Your task to perform on an android device: open app "The Home Depot" Image 0: 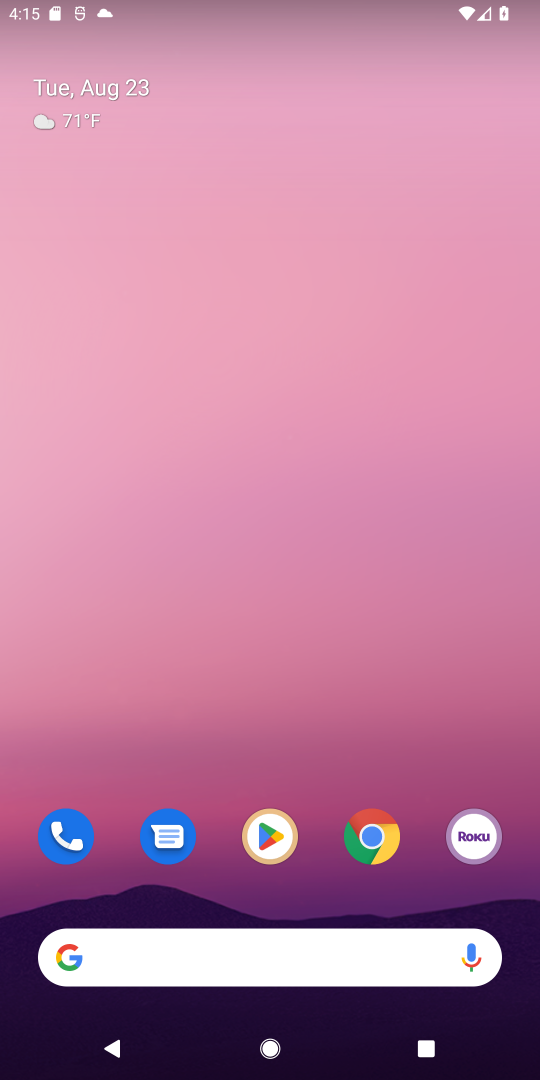
Step 0: click (267, 834)
Your task to perform on an android device: open app "The Home Depot" Image 1: 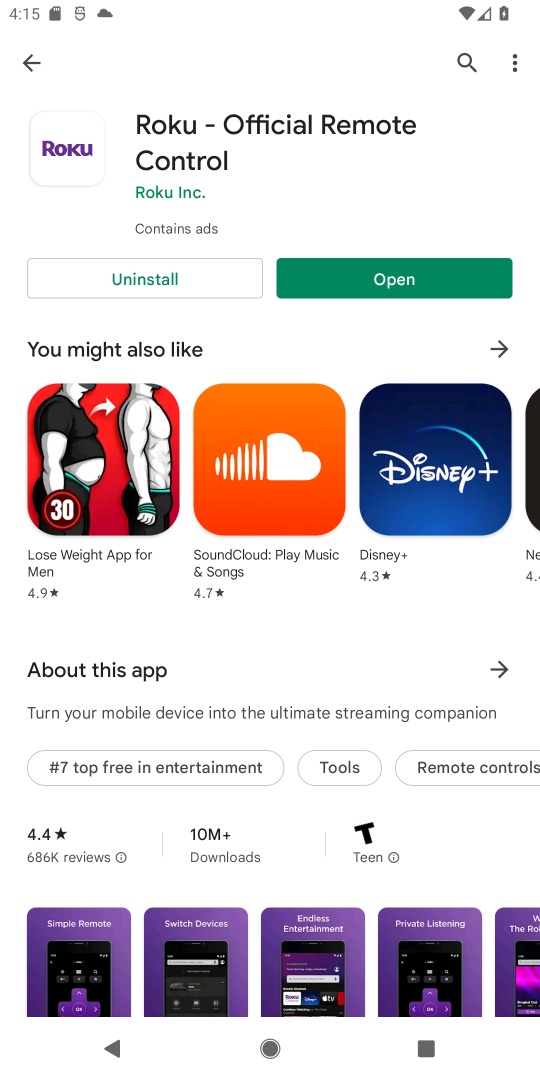
Step 1: click (458, 62)
Your task to perform on an android device: open app "The Home Depot" Image 2: 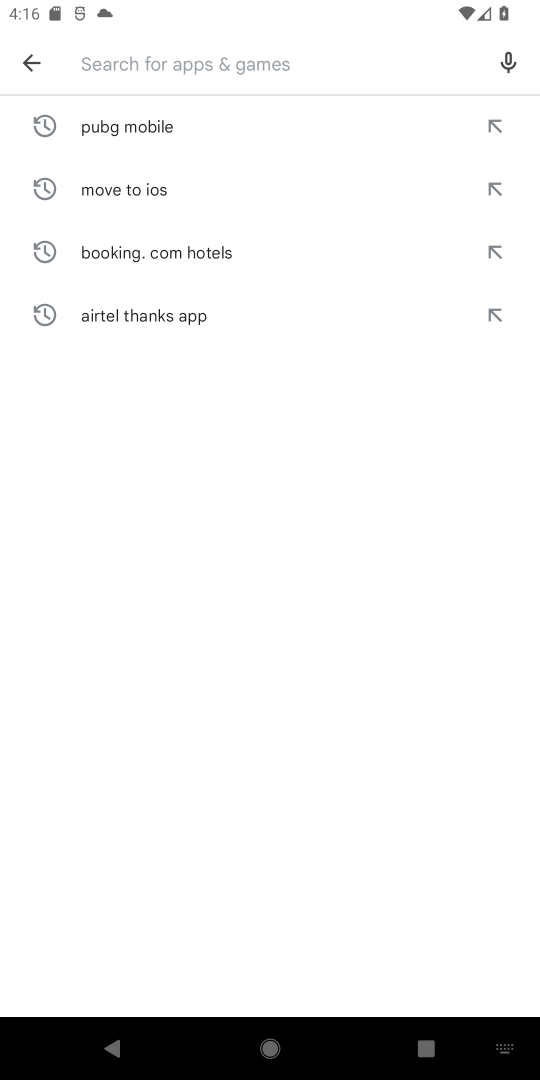
Step 2: type "The Home Depot"
Your task to perform on an android device: open app "The Home Depot" Image 3: 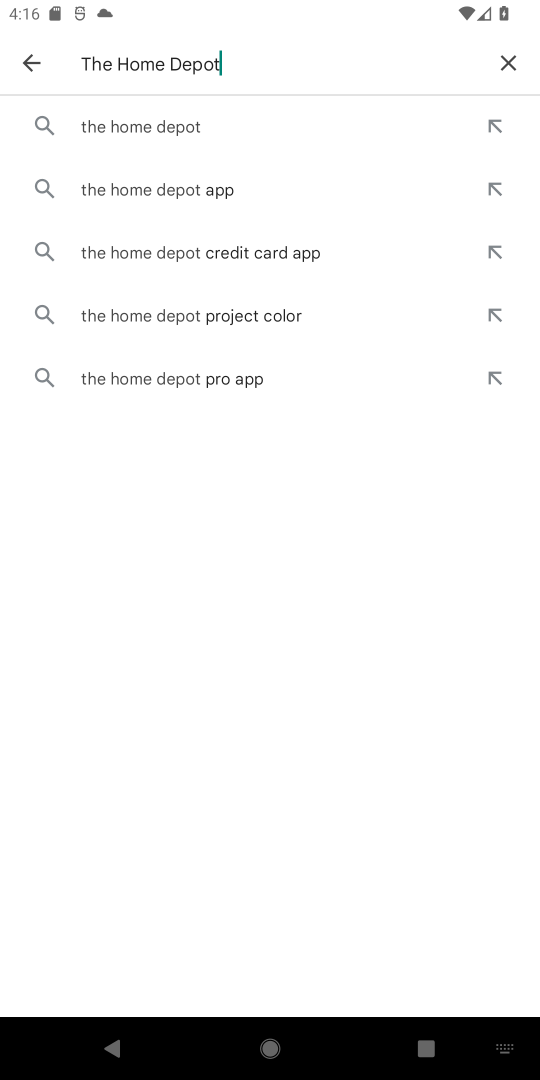
Step 3: click (135, 116)
Your task to perform on an android device: open app "The Home Depot" Image 4: 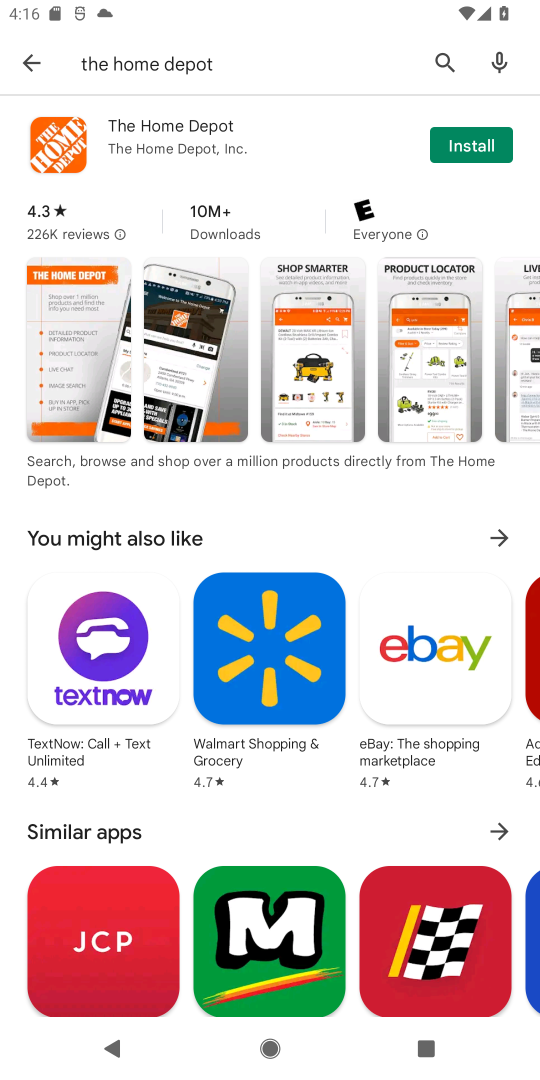
Step 4: task complete